Your task to perform on an android device: add a contact Image 0: 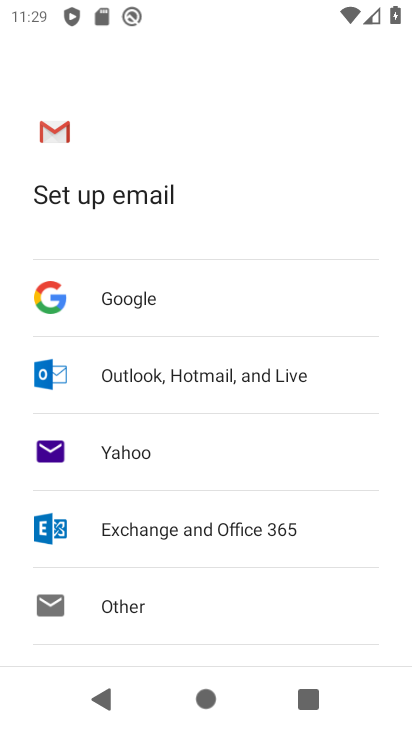
Step 0: press back button
Your task to perform on an android device: add a contact Image 1: 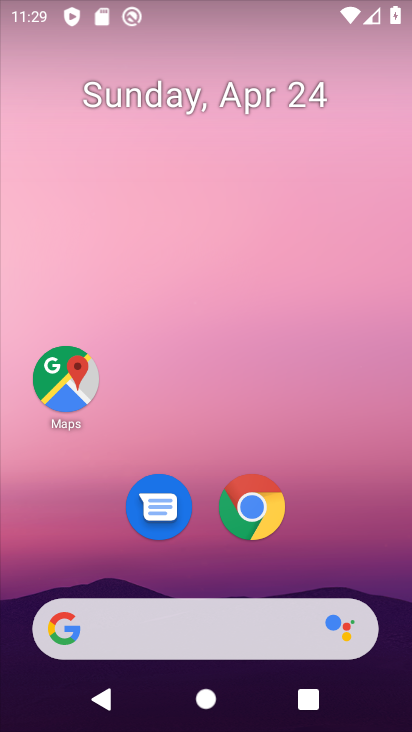
Step 1: drag from (356, 572) to (304, 60)
Your task to perform on an android device: add a contact Image 2: 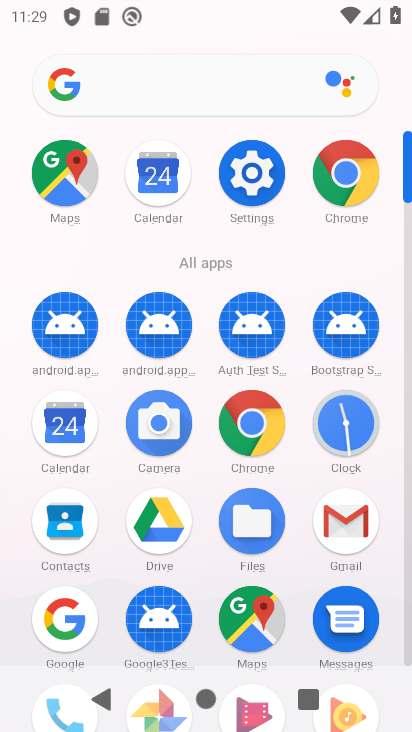
Step 2: click (62, 516)
Your task to perform on an android device: add a contact Image 3: 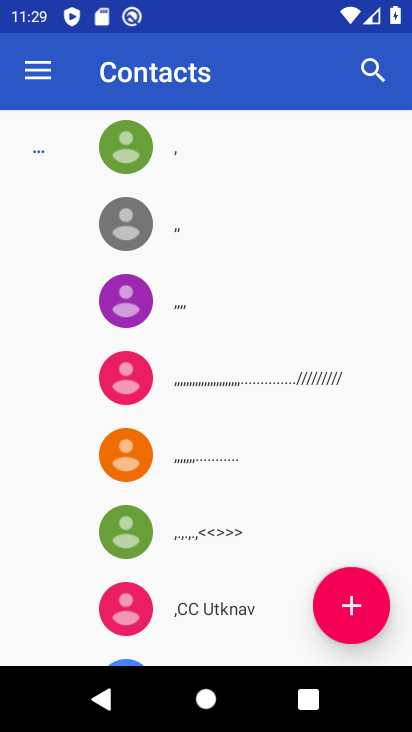
Step 3: click (381, 606)
Your task to perform on an android device: add a contact Image 4: 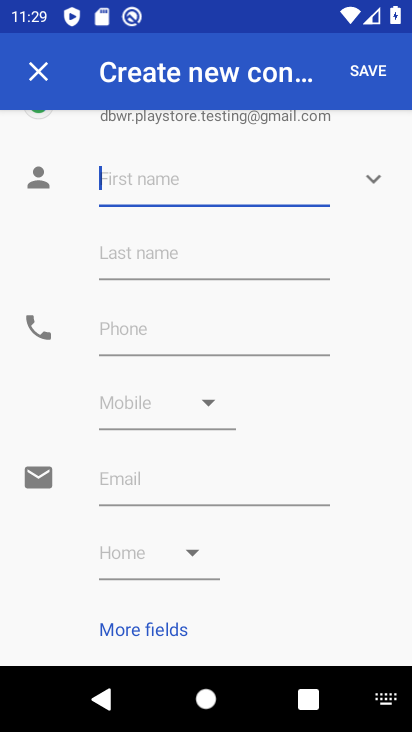
Step 4: type "Kuuytt"
Your task to perform on an android device: add a contact Image 5: 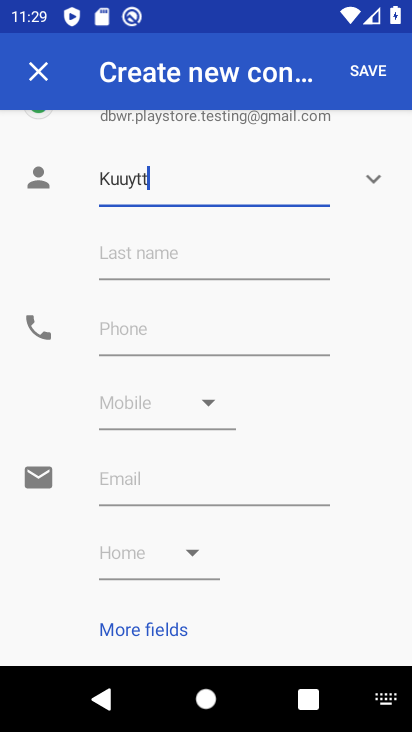
Step 5: type ""
Your task to perform on an android device: add a contact Image 6: 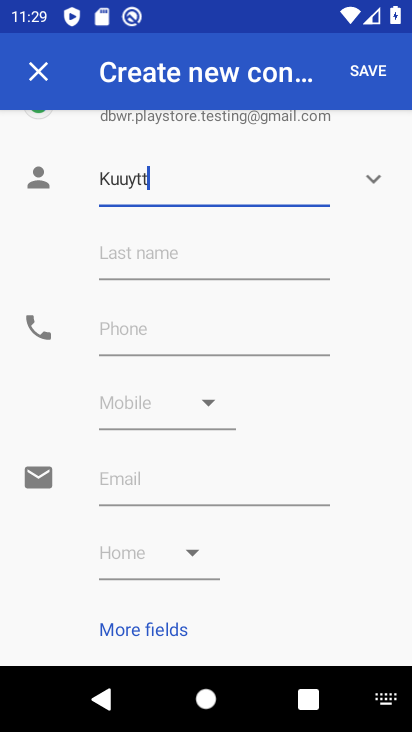
Step 6: click (128, 322)
Your task to perform on an android device: add a contact Image 7: 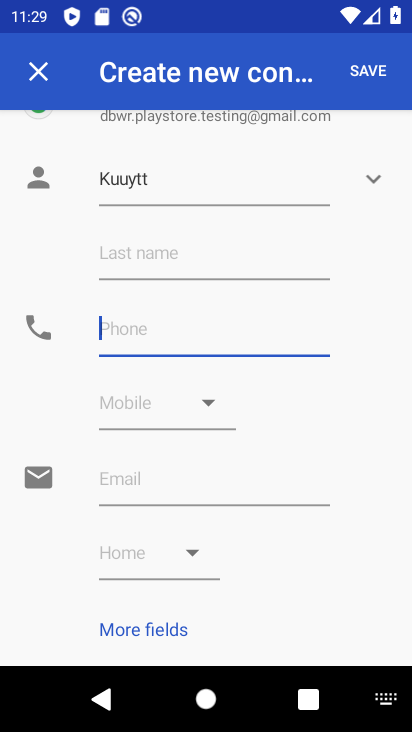
Step 7: type "453234567890"
Your task to perform on an android device: add a contact Image 8: 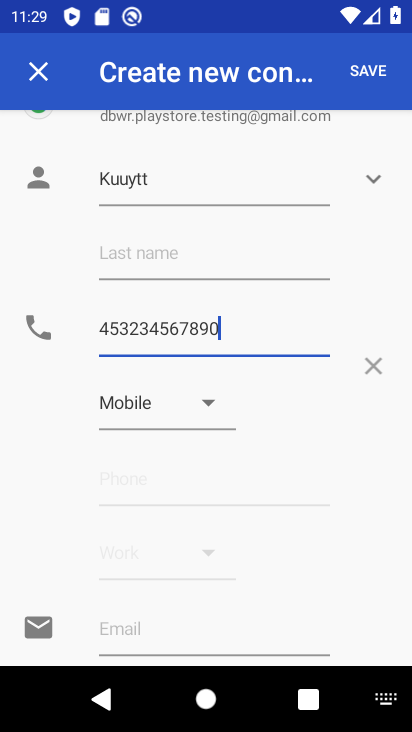
Step 8: type ""
Your task to perform on an android device: add a contact Image 9: 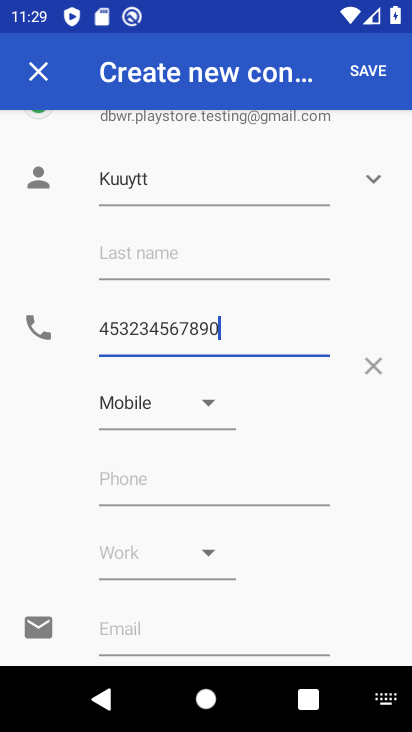
Step 9: click (375, 74)
Your task to perform on an android device: add a contact Image 10: 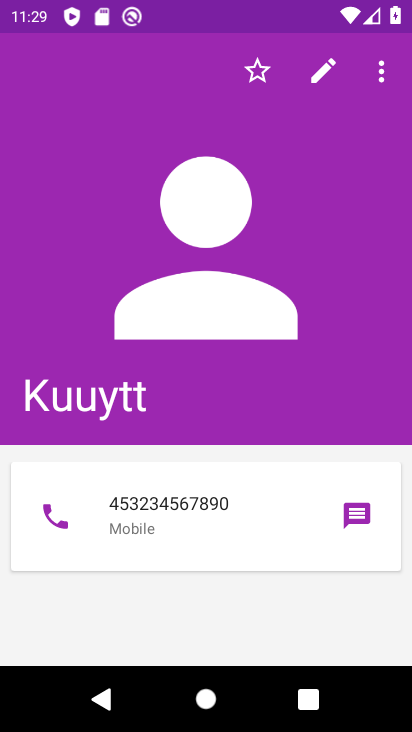
Step 10: task complete